Your task to perform on an android device: What's on my calendar today? Image 0: 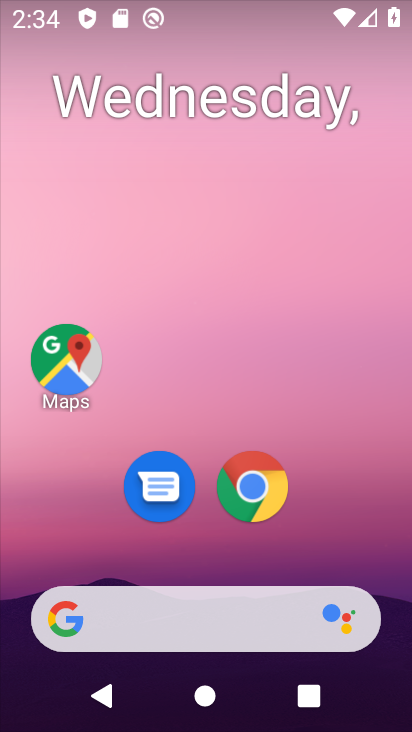
Step 0: drag from (197, 559) to (178, 42)
Your task to perform on an android device: What's on my calendar today? Image 1: 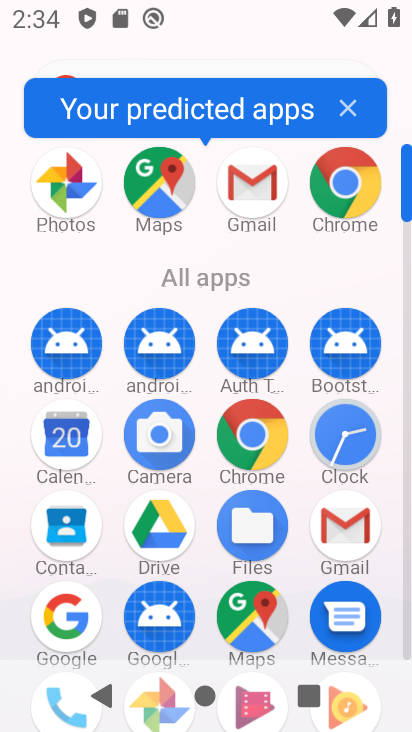
Step 1: click (84, 443)
Your task to perform on an android device: What's on my calendar today? Image 2: 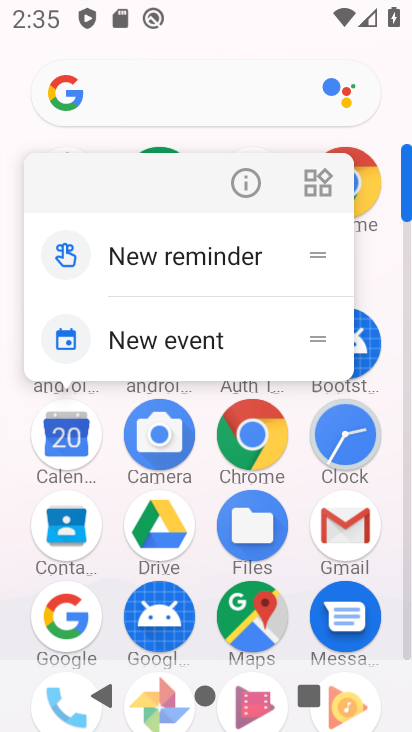
Step 2: click (84, 443)
Your task to perform on an android device: What's on my calendar today? Image 3: 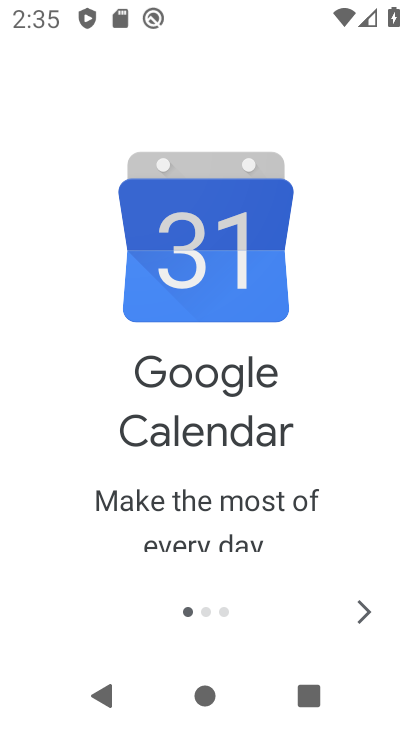
Step 3: click (360, 606)
Your task to perform on an android device: What's on my calendar today? Image 4: 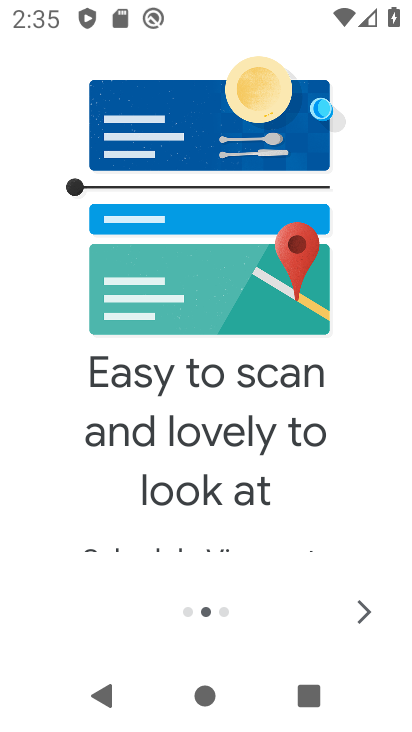
Step 4: click (360, 606)
Your task to perform on an android device: What's on my calendar today? Image 5: 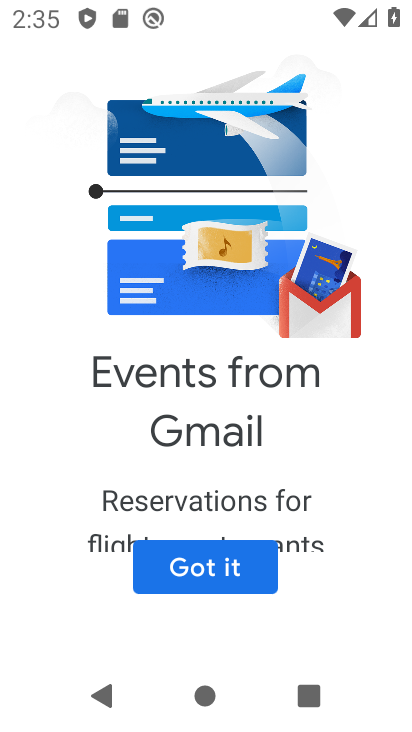
Step 5: click (144, 571)
Your task to perform on an android device: What's on my calendar today? Image 6: 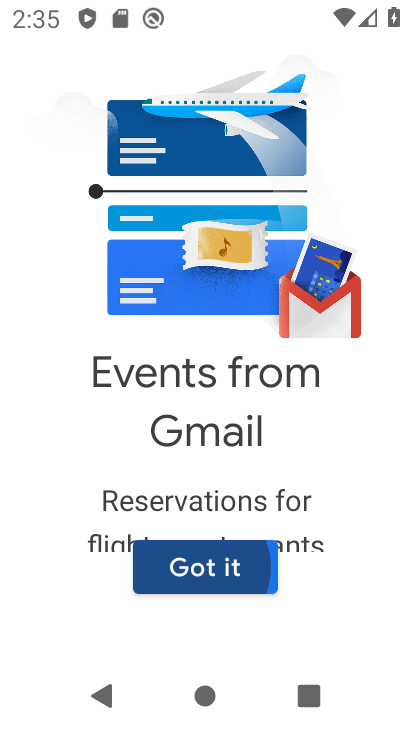
Step 6: click (144, 571)
Your task to perform on an android device: What's on my calendar today? Image 7: 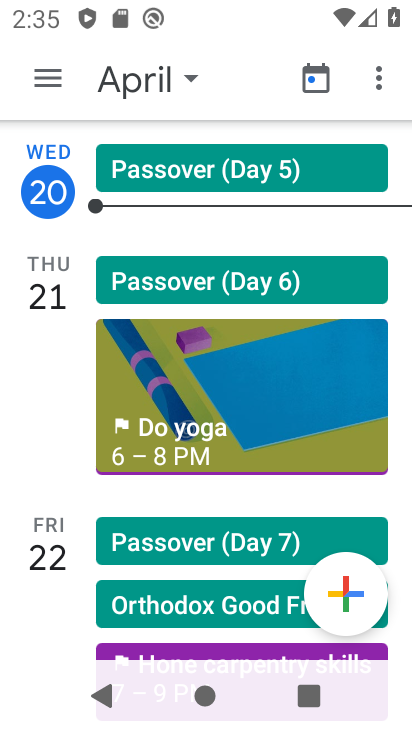
Step 7: click (71, 179)
Your task to perform on an android device: What's on my calendar today? Image 8: 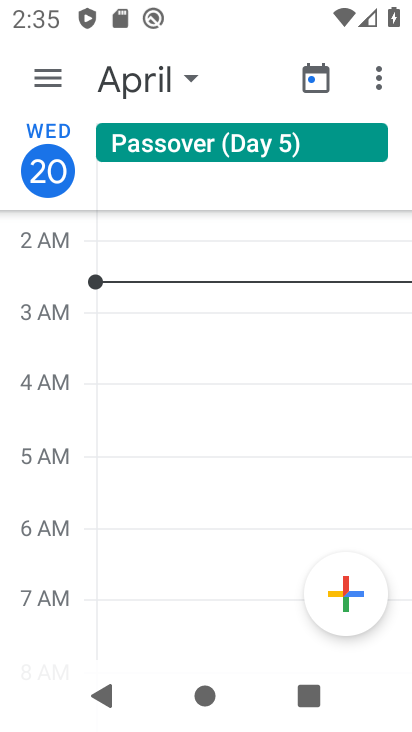
Step 8: task complete